Your task to perform on an android device: turn smart compose on in the gmail app Image 0: 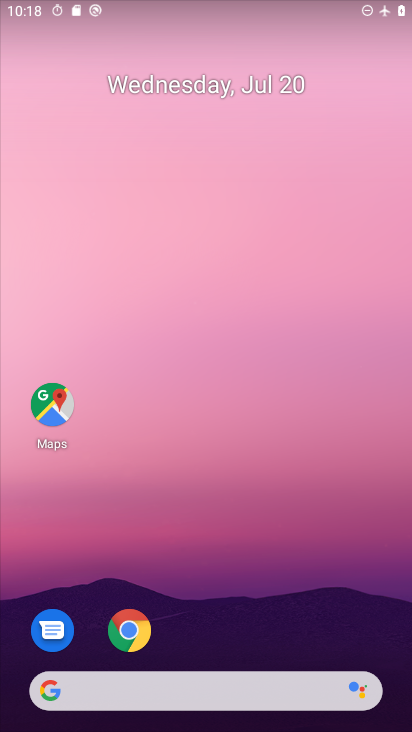
Step 0: drag from (249, 679) to (216, 270)
Your task to perform on an android device: turn smart compose on in the gmail app Image 1: 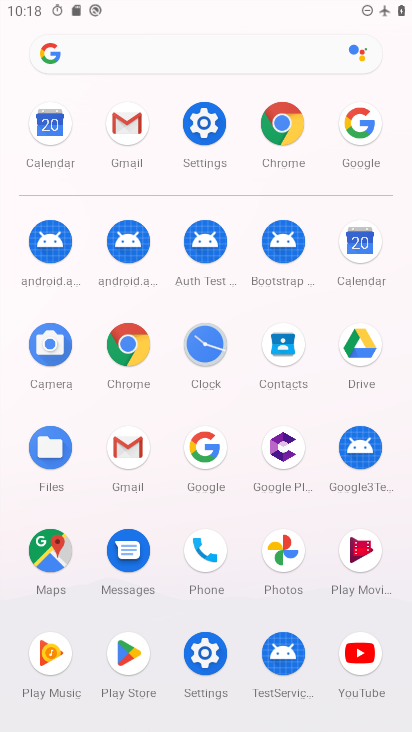
Step 1: click (127, 462)
Your task to perform on an android device: turn smart compose on in the gmail app Image 2: 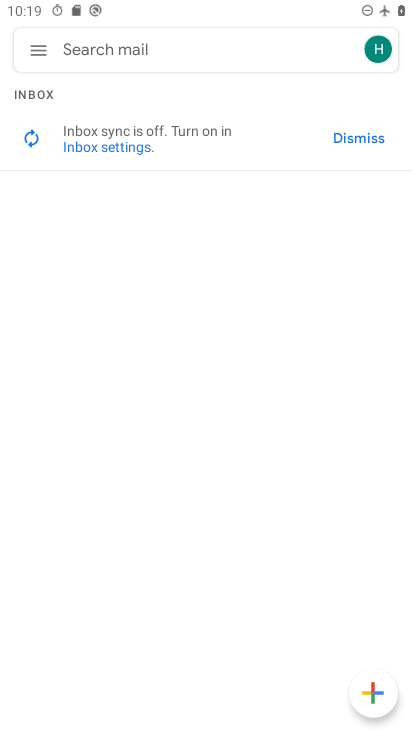
Step 2: click (31, 44)
Your task to perform on an android device: turn smart compose on in the gmail app Image 3: 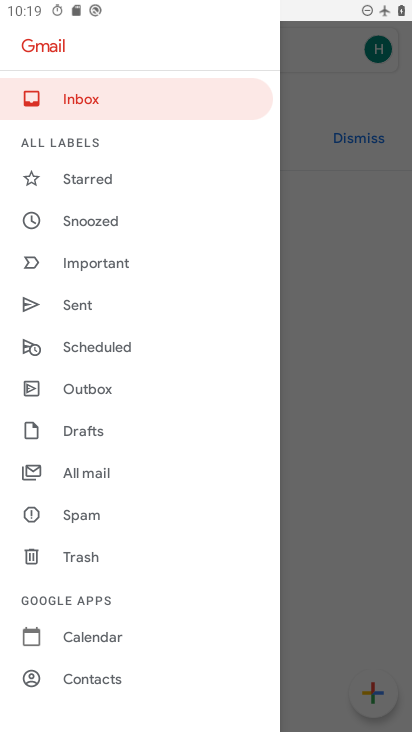
Step 3: drag from (95, 651) to (84, 204)
Your task to perform on an android device: turn smart compose on in the gmail app Image 4: 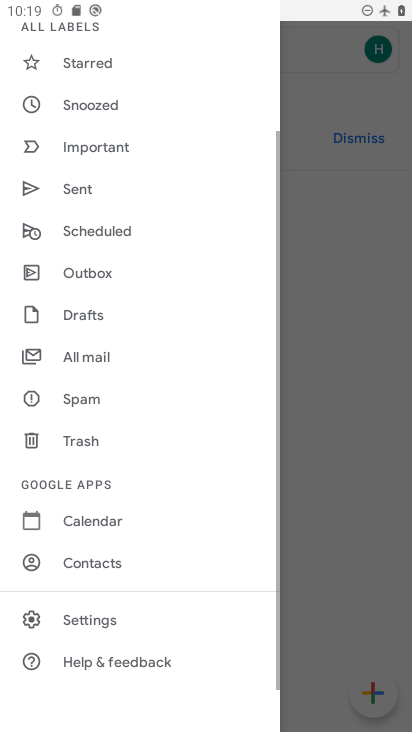
Step 4: click (109, 614)
Your task to perform on an android device: turn smart compose on in the gmail app Image 5: 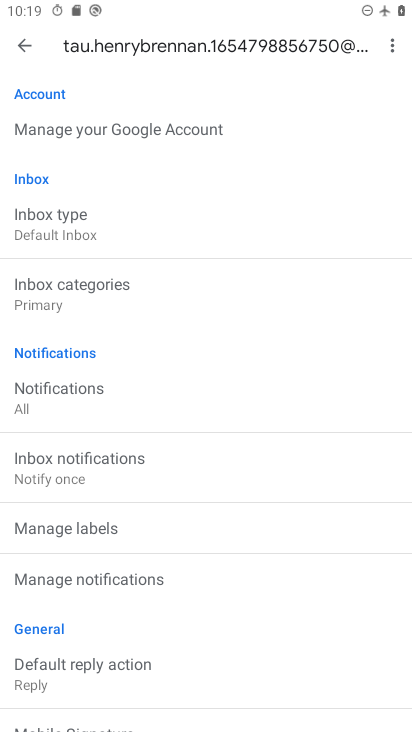
Step 5: task complete